Your task to perform on an android device: turn on translation in the chrome app Image 0: 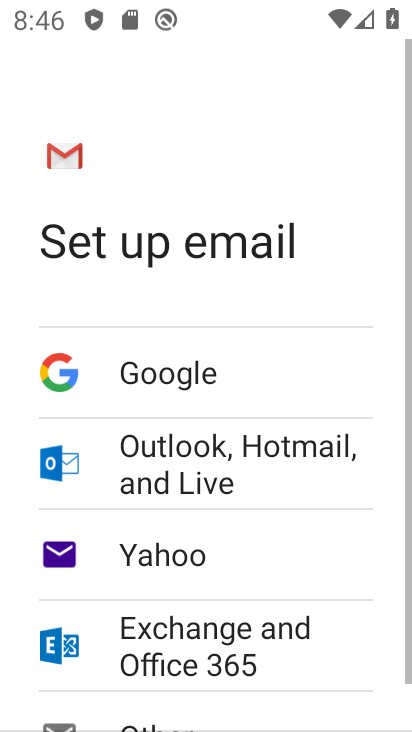
Step 0: press home button
Your task to perform on an android device: turn on translation in the chrome app Image 1: 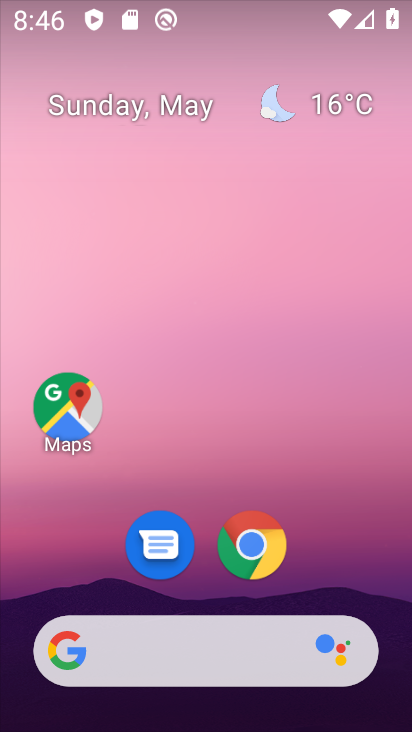
Step 1: click (246, 537)
Your task to perform on an android device: turn on translation in the chrome app Image 2: 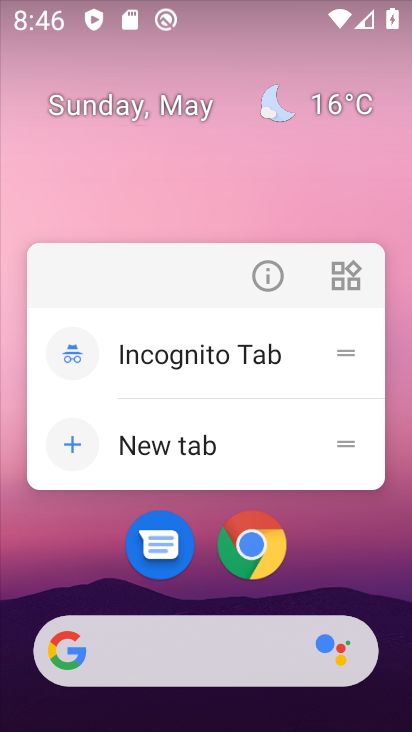
Step 2: click (263, 556)
Your task to perform on an android device: turn on translation in the chrome app Image 3: 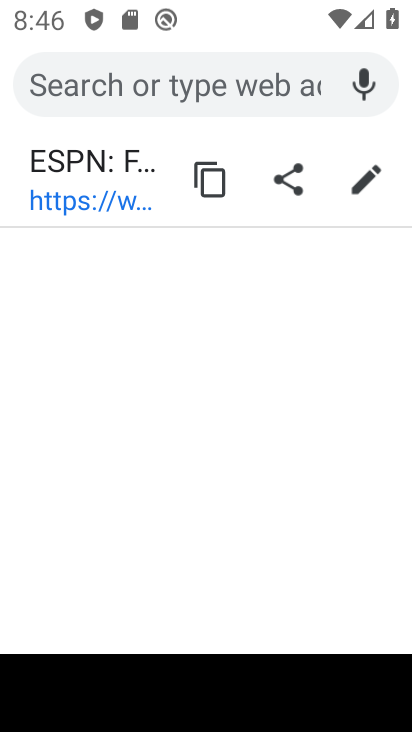
Step 3: press back button
Your task to perform on an android device: turn on translation in the chrome app Image 4: 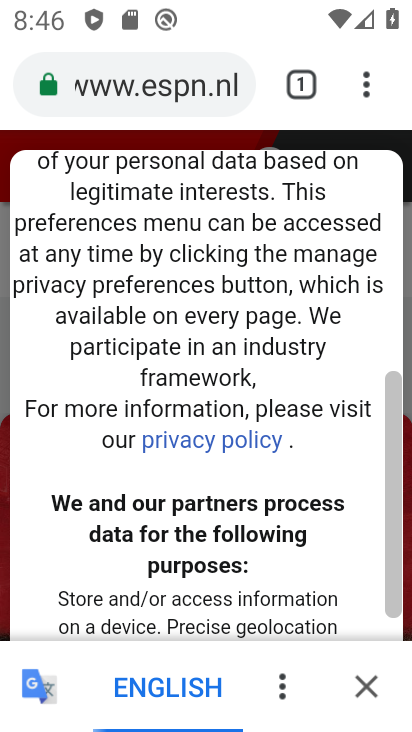
Step 4: drag from (374, 82) to (165, 605)
Your task to perform on an android device: turn on translation in the chrome app Image 5: 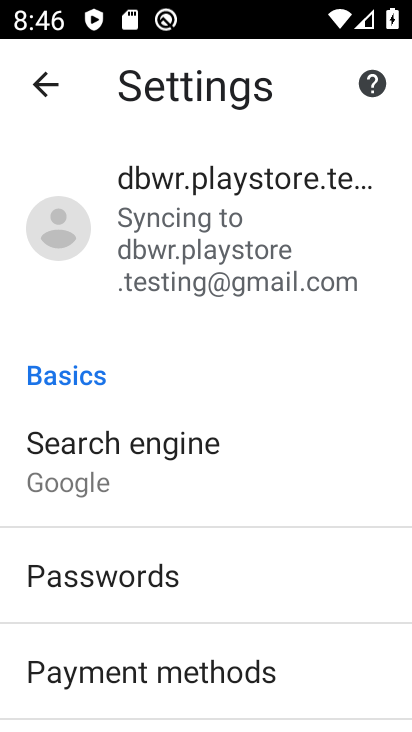
Step 5: drag from (311, 629) to (293, 305)
Your task to perform on an android device: turn on translation in the chrome app Image 6: 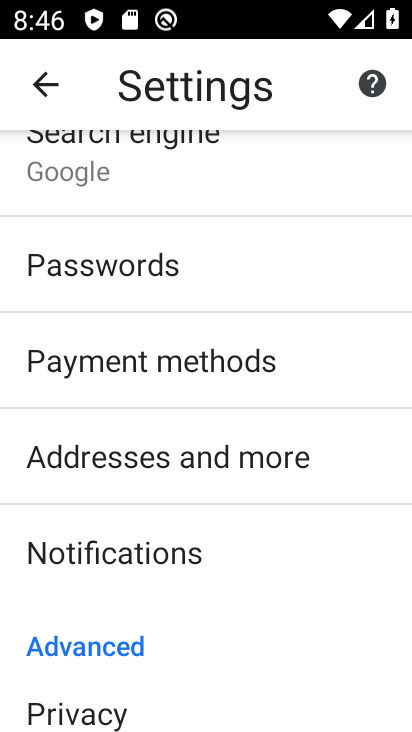
Step 6: drag from (320, 654) to (310, 307)
Your task to perform on an android device: turn on translation in the chrome app Image 7: 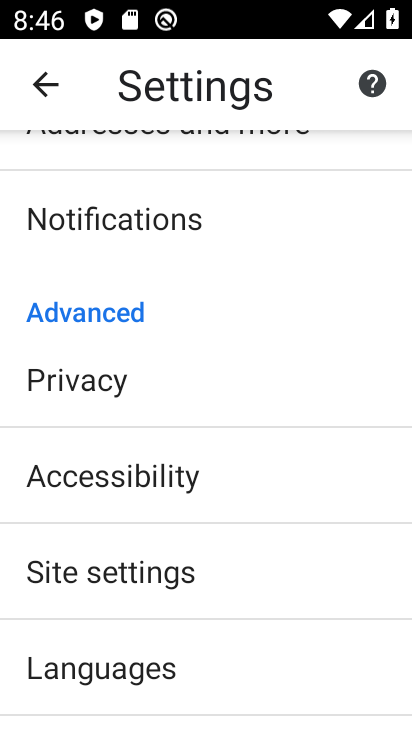
Step 7: click (179, 659)
Your task to perform on an android device: turn on translation in the chrome app Image 8: 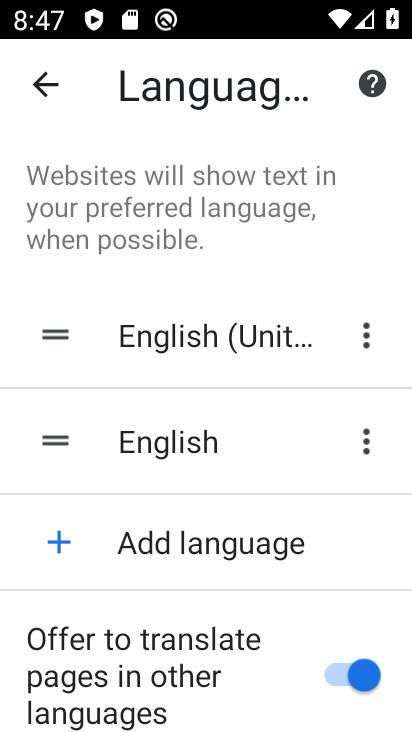
Step 8: task complete